Your task to perform on an android device: Open eBay Image 0: 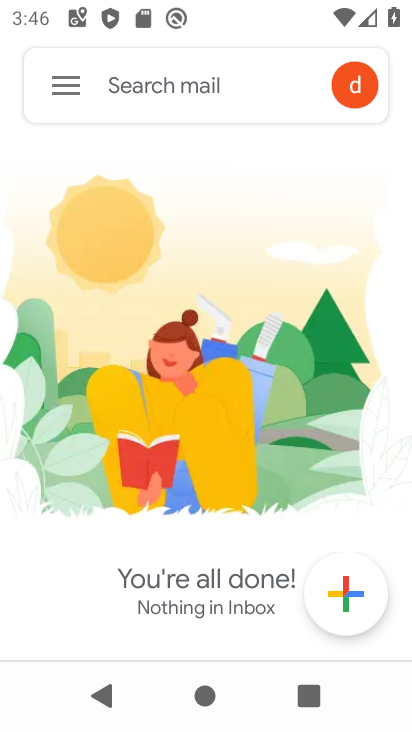
Step 0: click (79, 77)
Your task to perform on an android device: Open eBay Image 1: 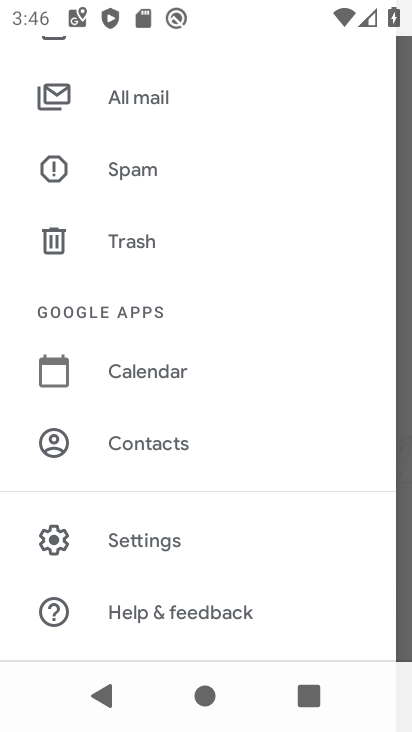
Step 1: drag from (215, 184) to (324, 544)
Your task to perform on an android device: Open eBay Image 2: 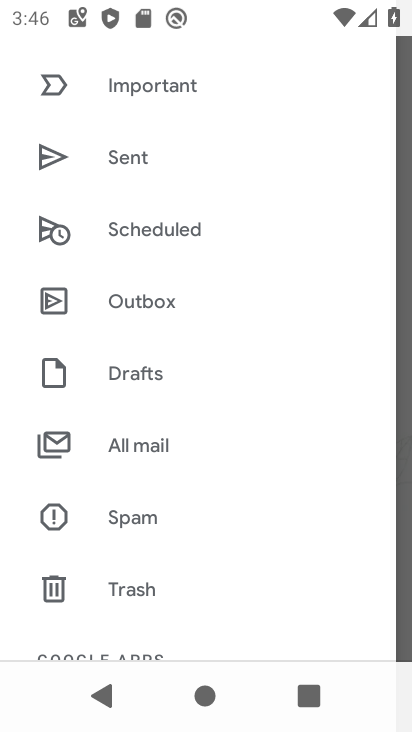
Step 2: drag from (265, 220) to (356, 728)
Your task to perform on an android device: Open eBay Image 3: 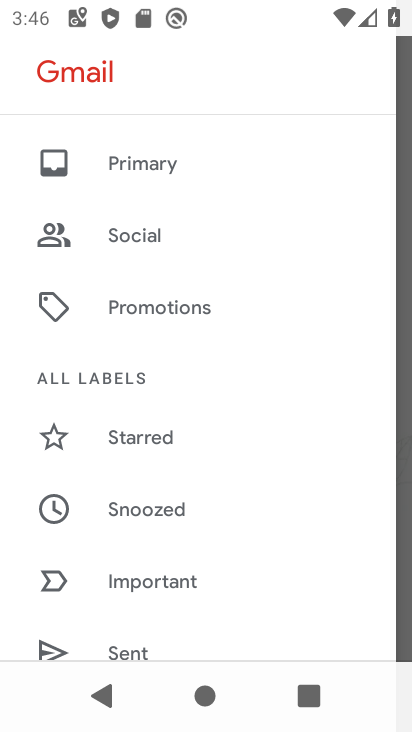
Step 3: press home button
Your task to perform on an android device: Open eBay Image 4: 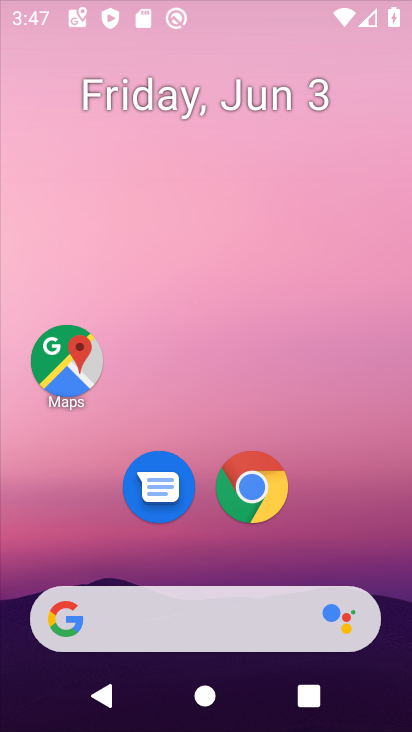
Step 4: drag from (151, 576) to (244, 10)
Your task to perform on an android device: Open eBay Image 5: 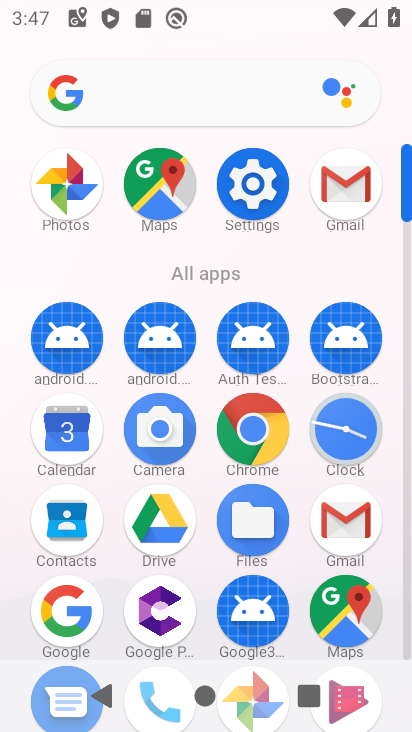
Step 5: click (201, 74)
Your task to perform on an android device: Open eBay Image 6: 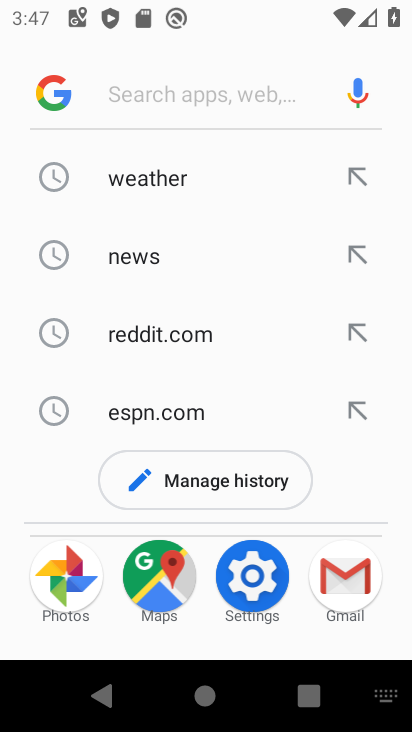
Step 6: click (150, 110)
Your task to perform on an android device: Open eBay Image 7: 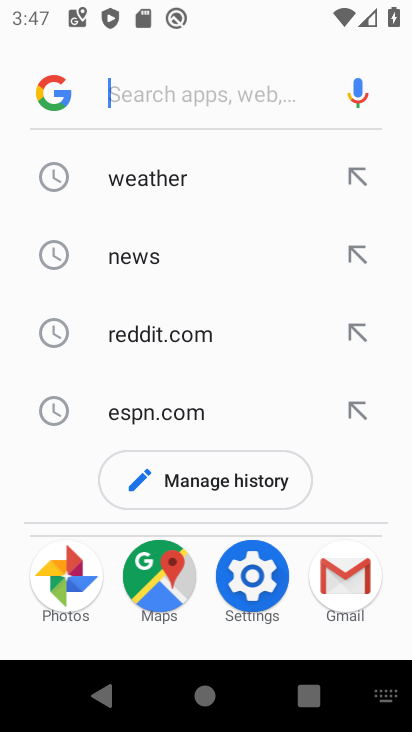
Step 7: type "eBay"
Your task to perform on an android device: Open eBay Image 8: 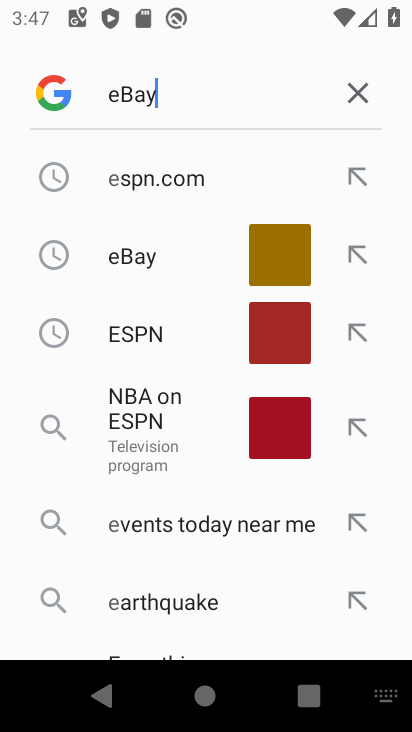
Step 8: type ""
Your task to perform on an android device: Open eBay Image 9: 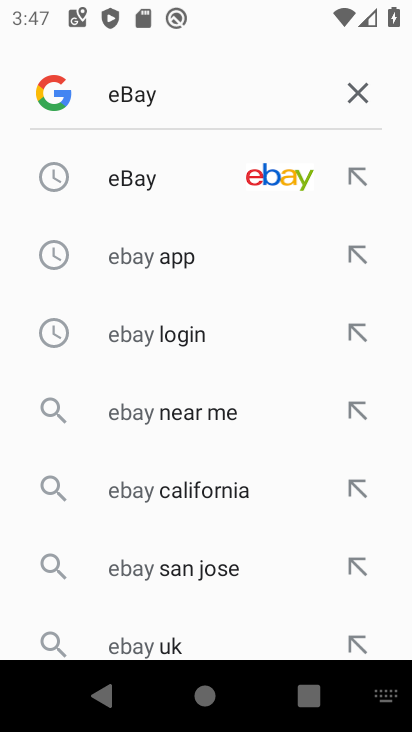
Step 9: click (161, 173)
Your task to perform on an android device: Open eBay Image 10: 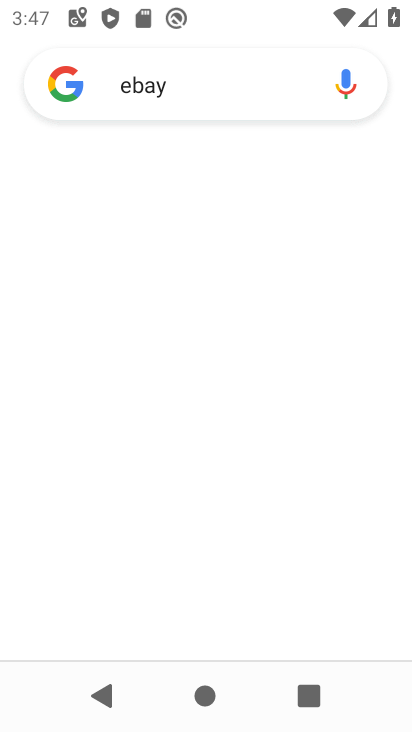
Step 10: task complete